Your task to perform on an android device: remove spam from my inbox in the gmail app Image 0: 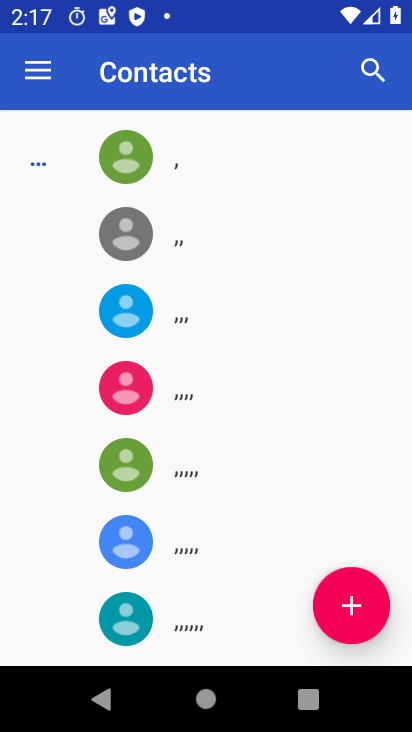
Step 0: press home button
Your task to perform on an android device: remove spam from my inbox in the gmail app Image 1: 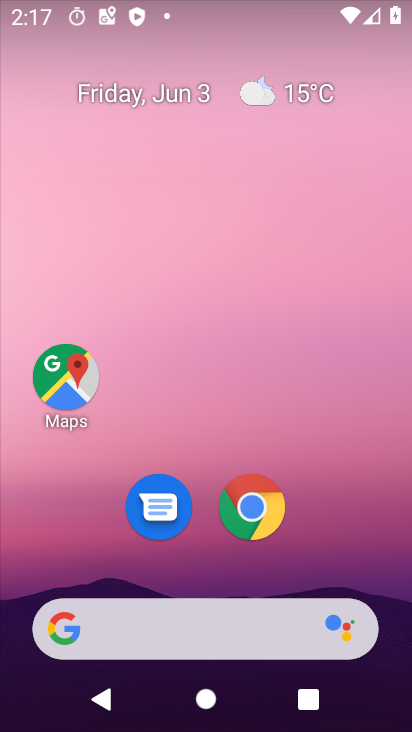
Step 1: drag from (398, 651) to (302, 28)
Your task to perform on an android device: remove spam from my inbox in the gmail app Image 2: 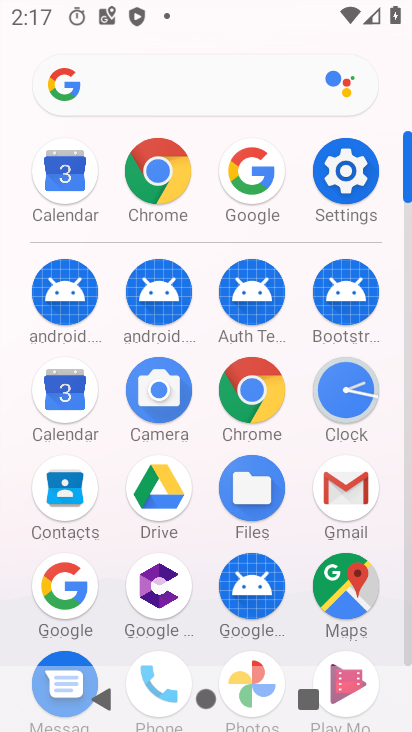
Step 2: click (329, 499)
Your task to perform on an android device: remove spam from my inbox in the gmail app Image 3: 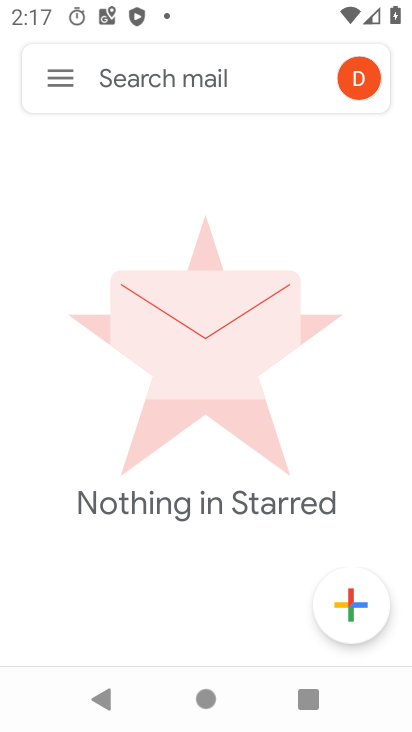
Step 3: task complete